Your task to perform on an android device: Open Wikipedia Image 0: 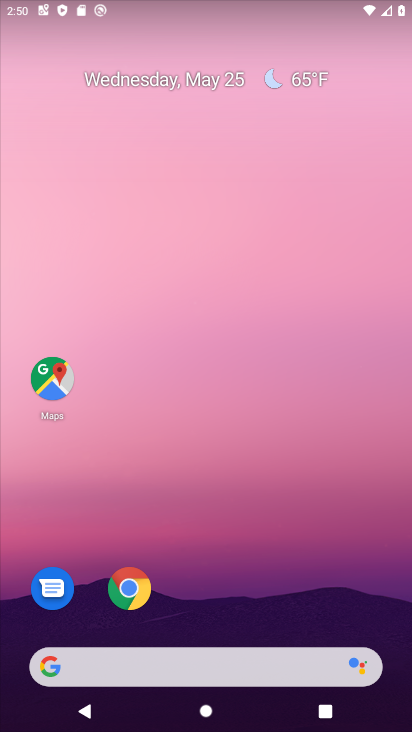
Step 0: click (127, 589)
Your task to perform on an android device: Open Wikipedia Image 1: 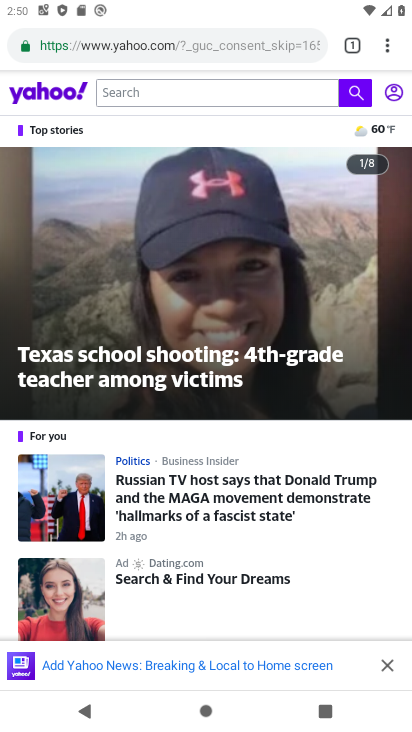
Step 1: click (81, 48)
Your task to perform on an android device: Open Wikipedia Image 2: 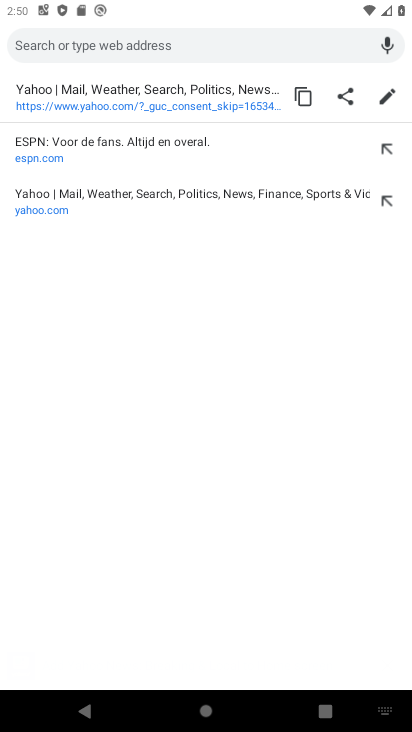
Step 2: type "wikipedia"
Your task to perform on an android device: Open Wikipedia Image 3: 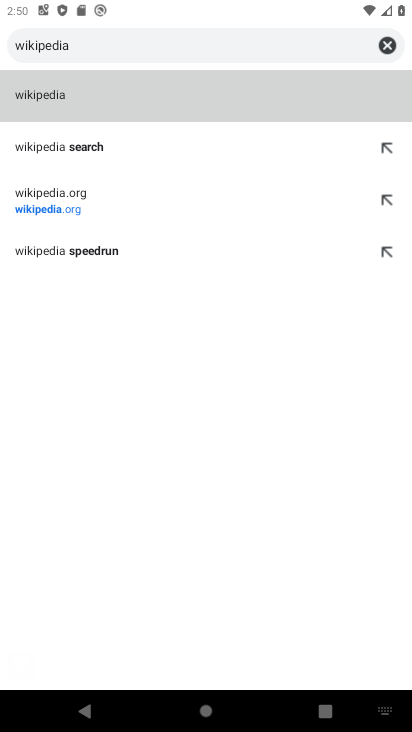
Step 3: click (96, 89)
Your task to perform on an android device: Open Wikipedia Image 4: 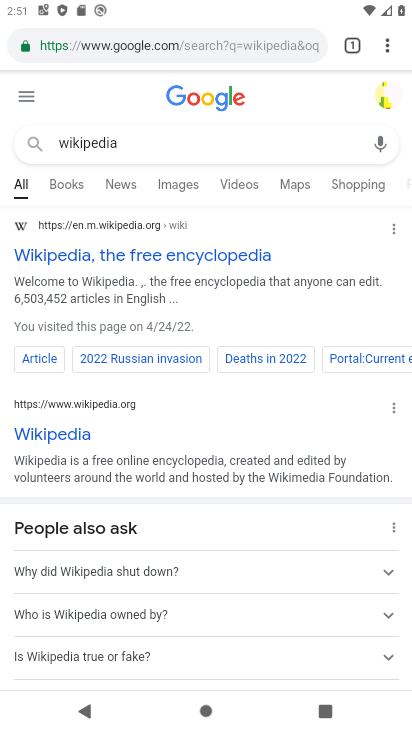
Step 4: task complete